Your task to perform on an android device: What's the weather today? Image 0: 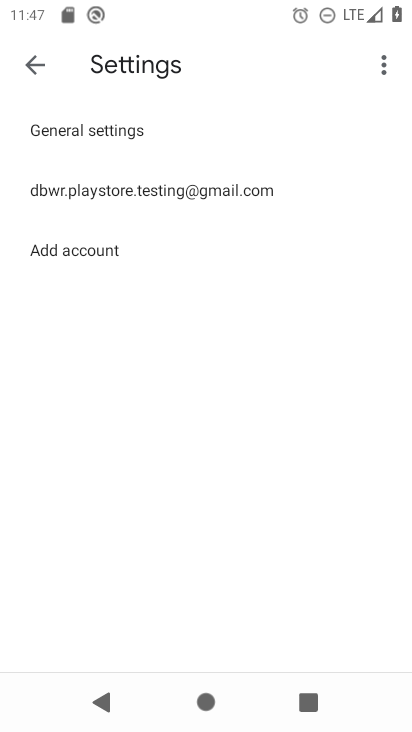
Step 0: press home button
Your task to perform on an android device: What's the weather today? Image 1: 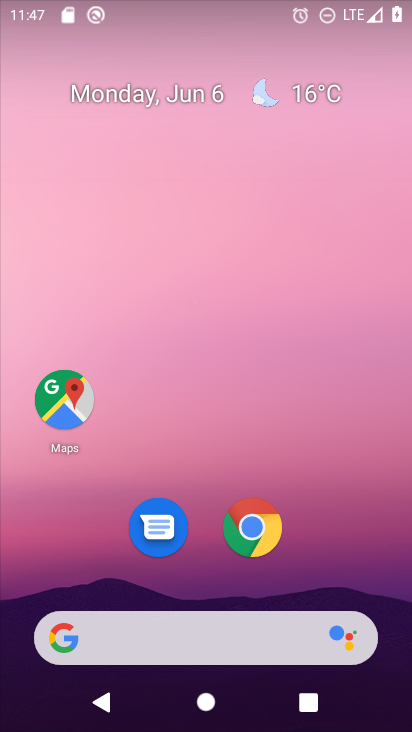
Step 1: drag from (328, 542) to (330, 151)
Your task to perform on an android device: What's the weather today? Image 2: 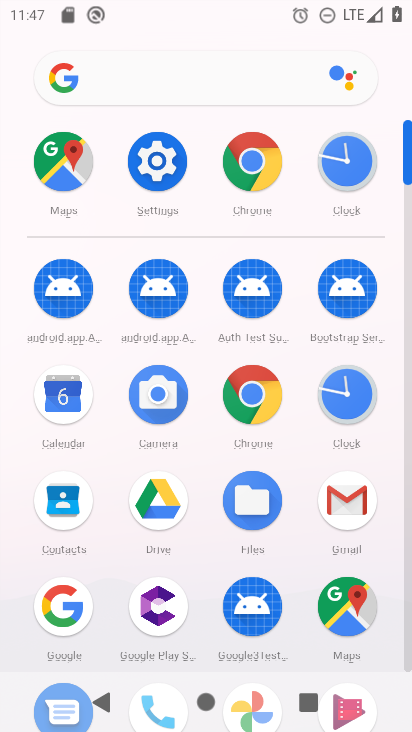
Step 2: click (211, 67)
Your task to perform on an android device: What's the weather today? Image 3: 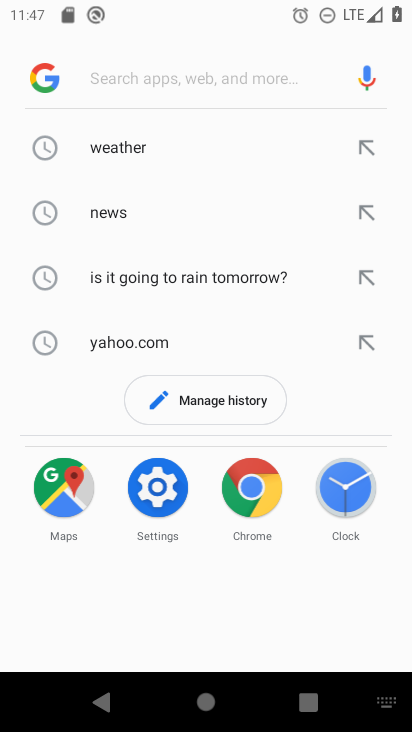
Step 3: click (160, 165)
Your task to perform on an android device: What's the weather today? Image 4: 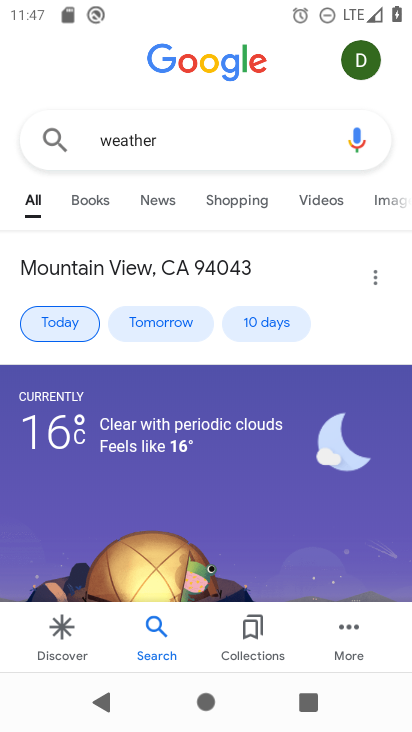
Step 4: task complete